Your task to perform on an android device: Go to network settings Image 0: 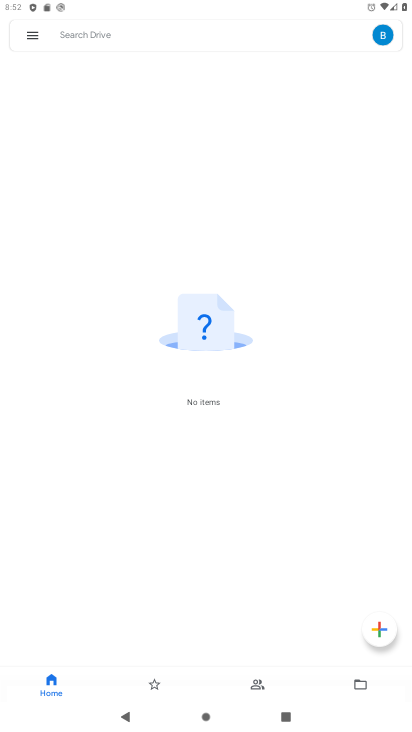
Step 0: press home button
Your task to perform on an android device: Go to network settings Image 1: 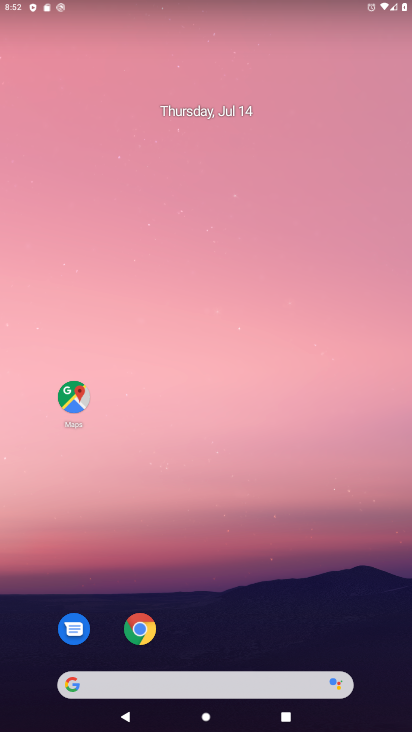
Step 1: drag from (234, 624) to (259, 241)
Your task to perform on an android device: Go to network settings Image 2: 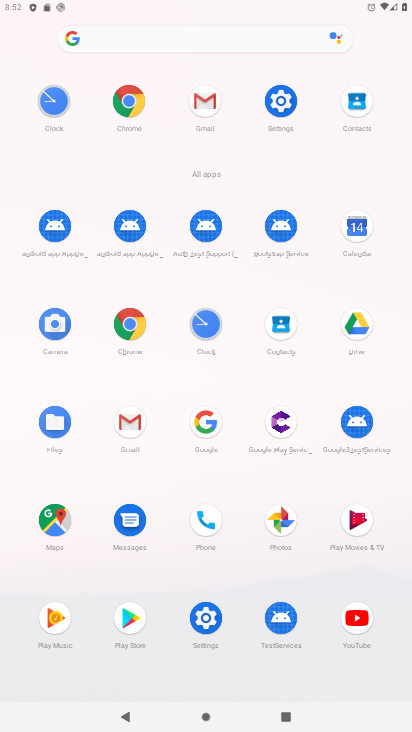
Step 2: click (279, 102)
Your task to perform on an android device: Go to network settings Image 3: 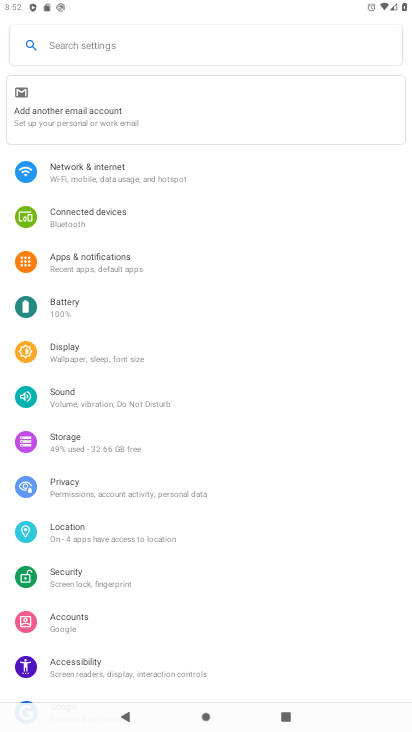
Step 3: click (90, 167)
Your task to perform on an android device: Go to network settings Image 4: 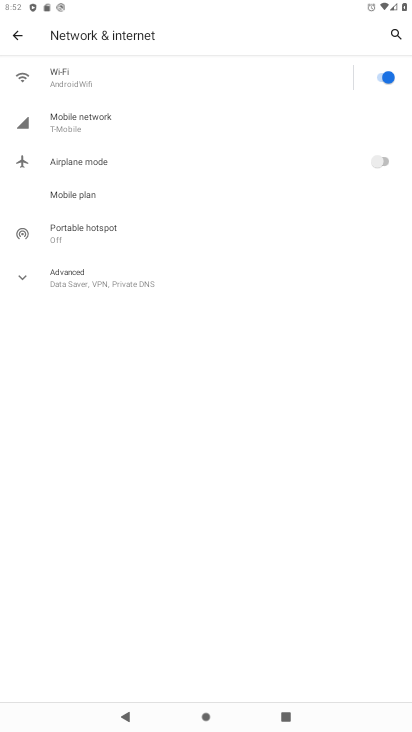
Step 4: click (115, 126)
Your task to perform on an android device: Go to network settings Image 5: 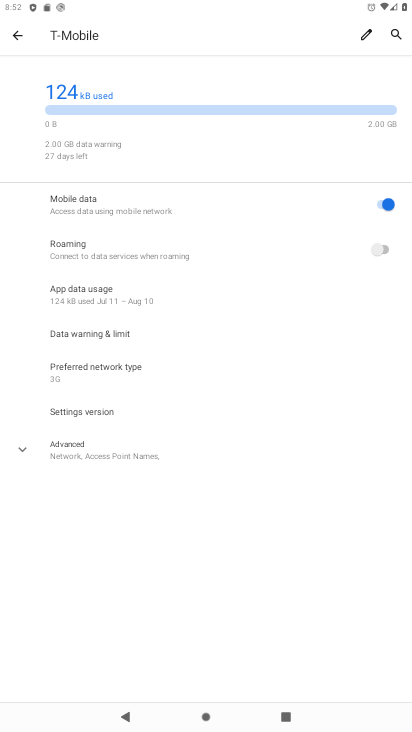
Step 5: task complete